Your task to perform on an android device: Open the stopwatch Image 0: 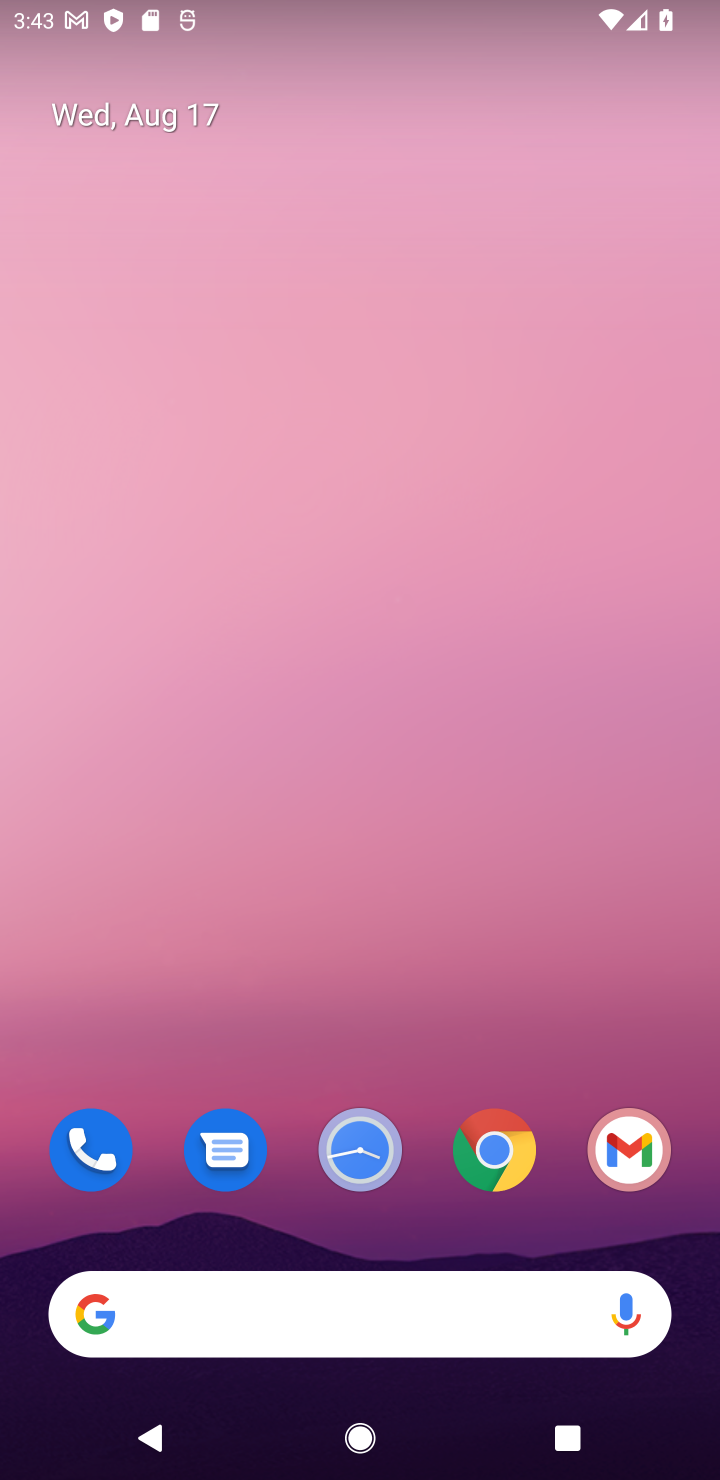
Step 0: drag from (531, 1013) to (393, 44)
Your task to perform on an android device: Open the stopwatch Image 1: 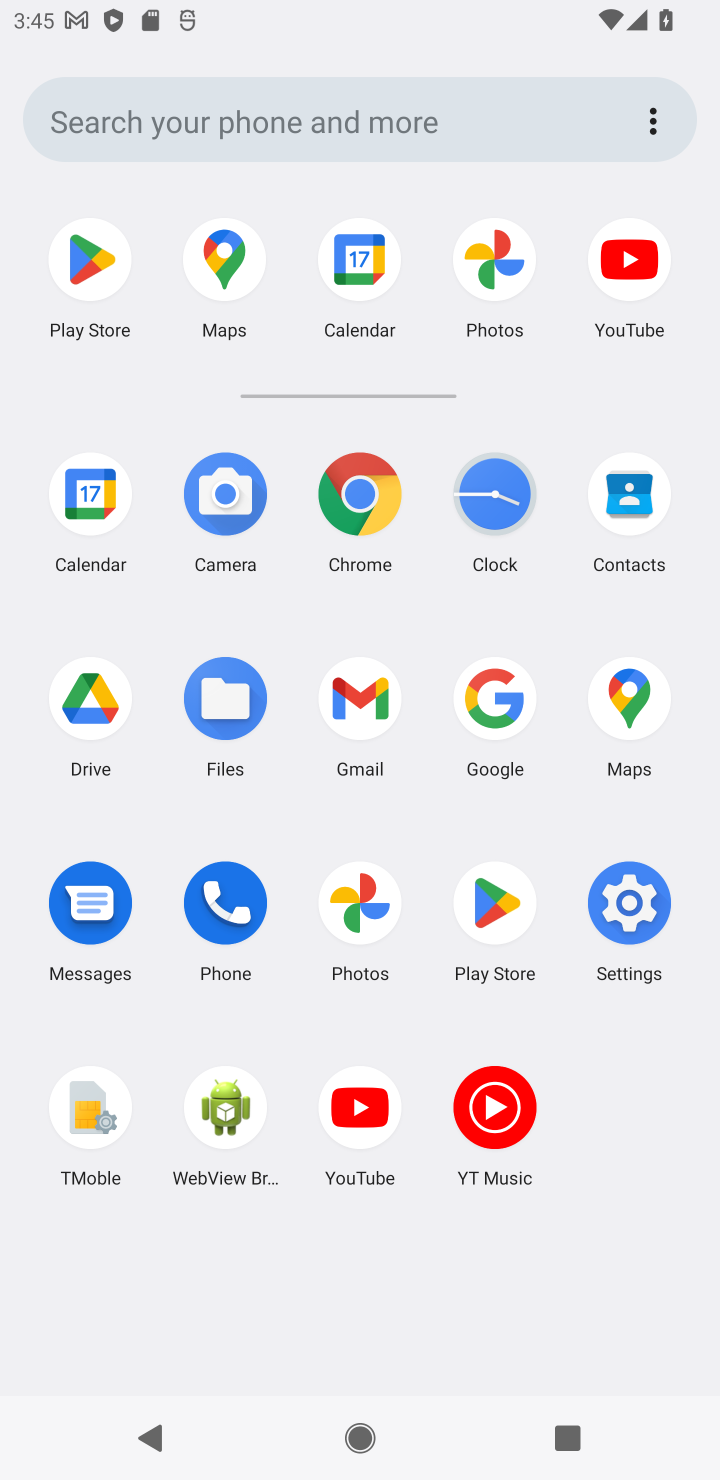
Step 1: click (475, 506)
Your task to perform on an android device: Open the stopwatch Image 2: 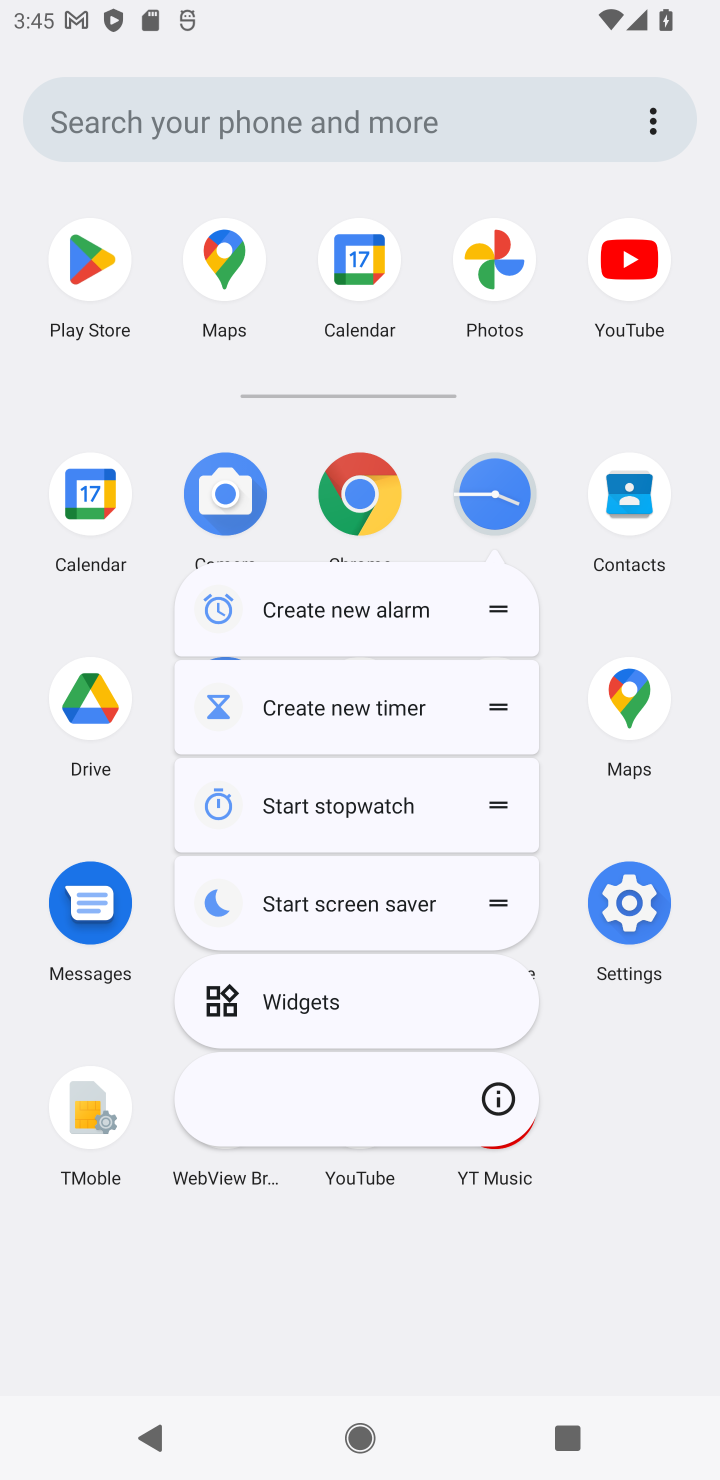
Step 2: click (475, 506)
Your task to perform on an android device: Open the stopwatch Image 3: 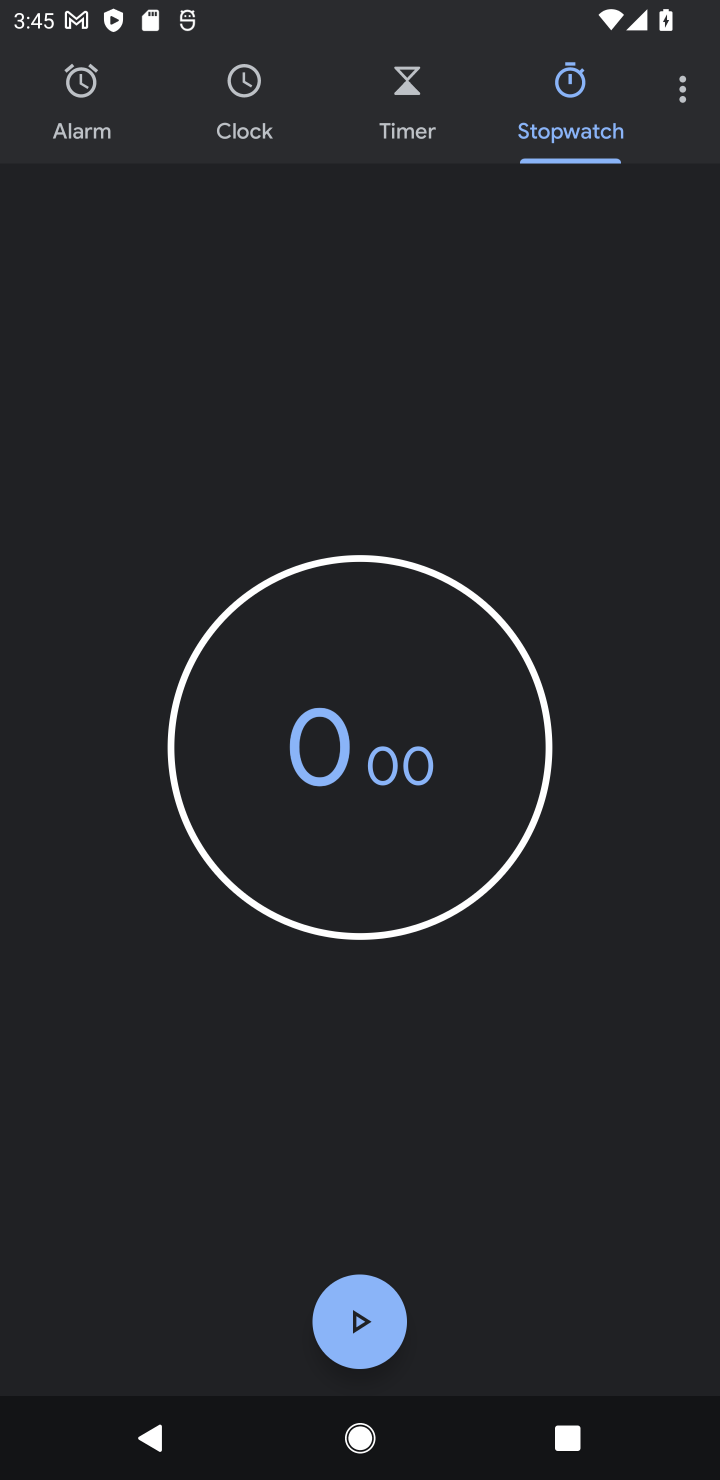
Step 3: task complete